Your task to perform on an android device: Find coffee shops on Maps Image 0: 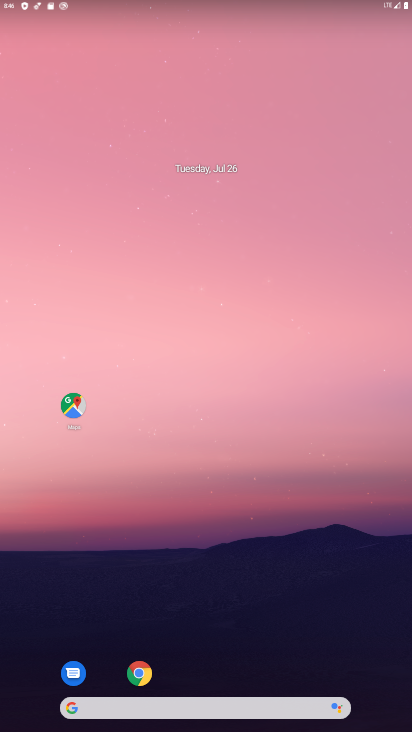
Step 0: drag from (215, 716) to (272, 108)
Your task to perform on an android device: Find coffee shops on Maps Image 1: 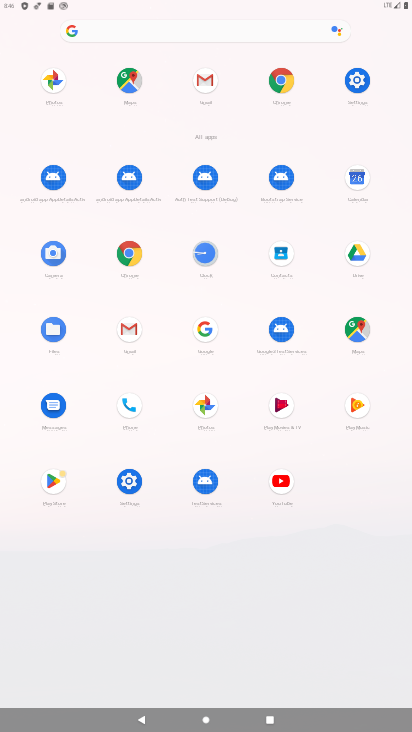
Step 1: click (348, 314)
Your task to perform on an android device: Find coffee shops on Maps Image 2: 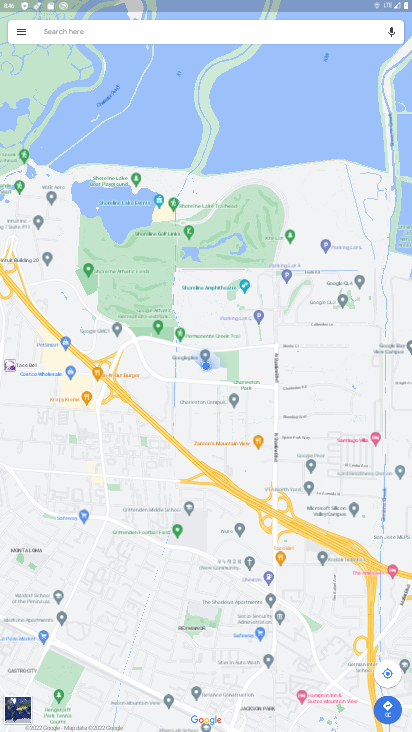
Step 2: click (43, 36)
Your task to perform on an android device: Find coffee shops on Maps Image 3: 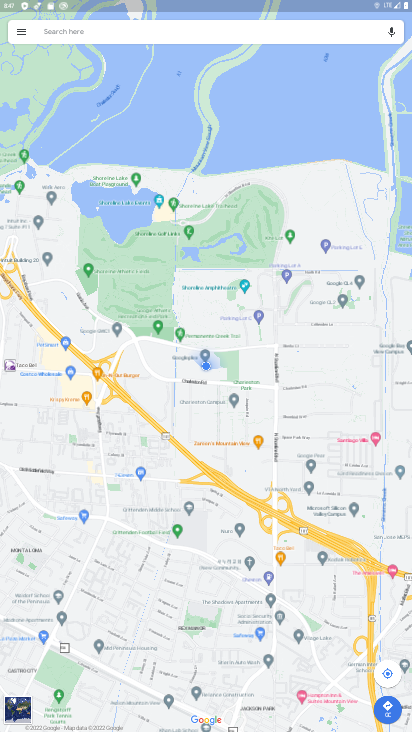
Step 3: click (223, 33)
Your task to perform on an android device: Find coffee shops on Maps Image 4: 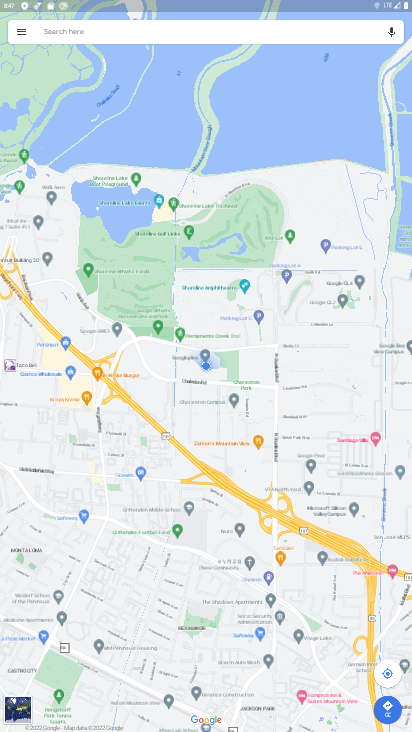
Step 4: click (223, 33)
Your task to perform on an android device: Find coffee shops on Maps Image 5: 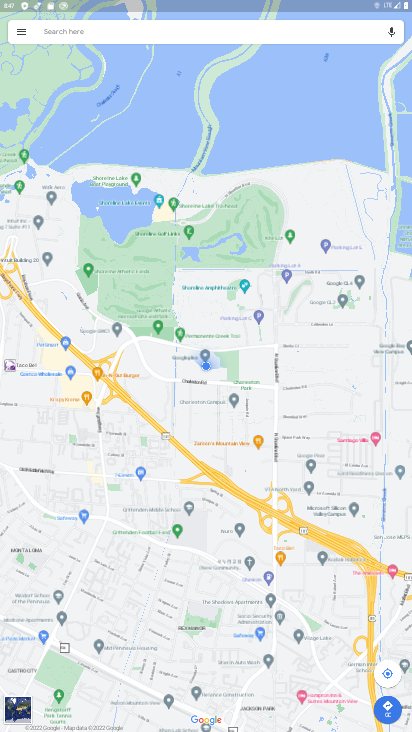
Step 5: click (223, 33)
Your task to perform on an android device: Find coffee shops on Maps Image 6: 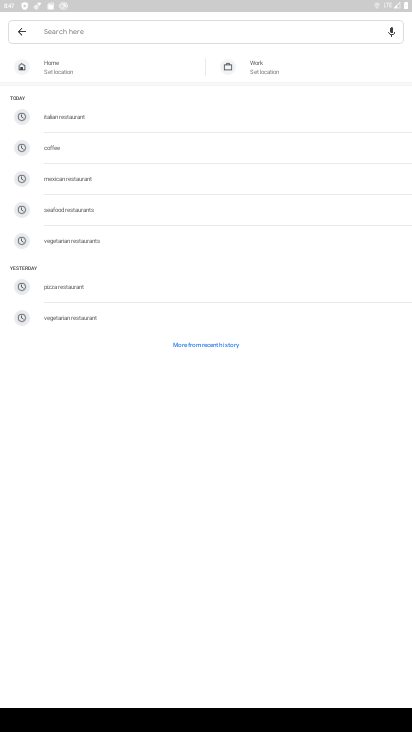
Step 6: type "coffee shops"
Your task to perform on an android device: Find coffee shops on Maps Image 7: 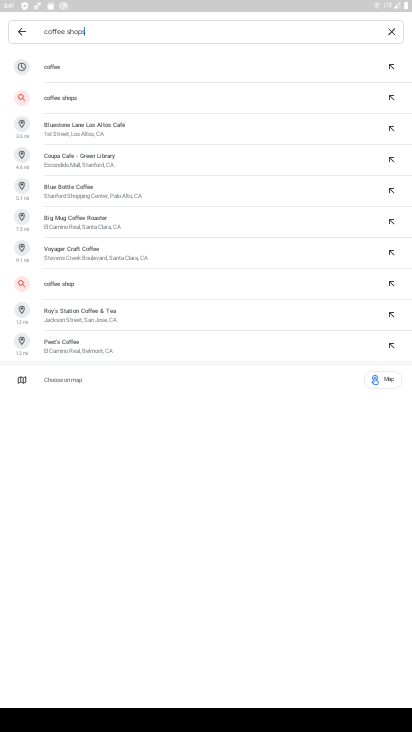
Step 7: click (143, 109)
Your task to perform on an android device: Find coffee shops on Maps Image 8: 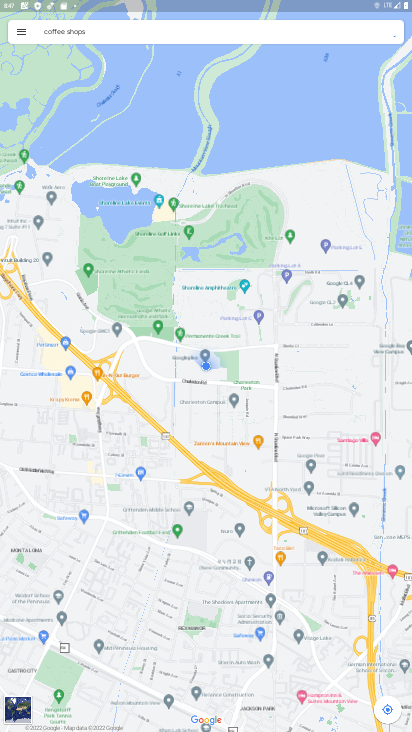
Step 8: task complete